Your task to perform on an android device: check android version Image 0: 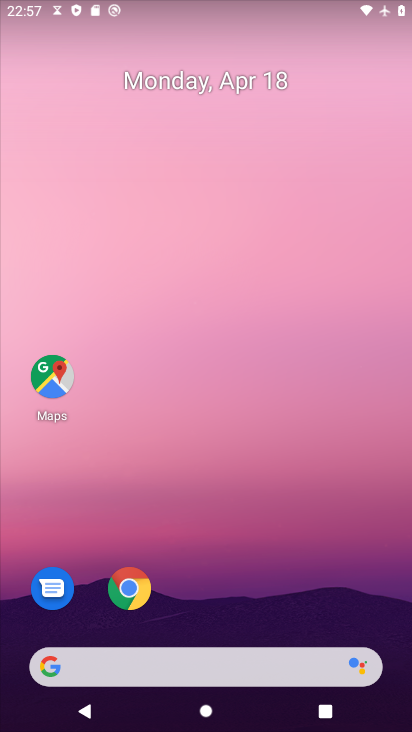
Step 0: drag from (291, 552) to (210, 13)
Your task to perform on an android device: check android version Image 1: 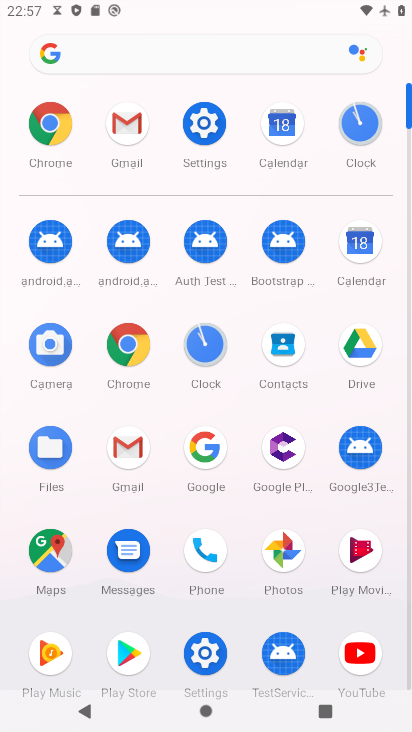
Step 1: click (206, 651)
Your task to perform on an android device: check android version Image 2: 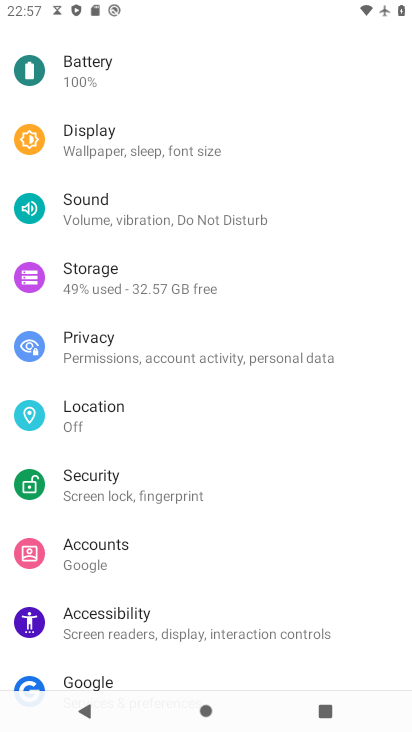
Step 2: drag from (243, 564) to (230, 126)
Your task to perform on an android device: check android version Image 3: 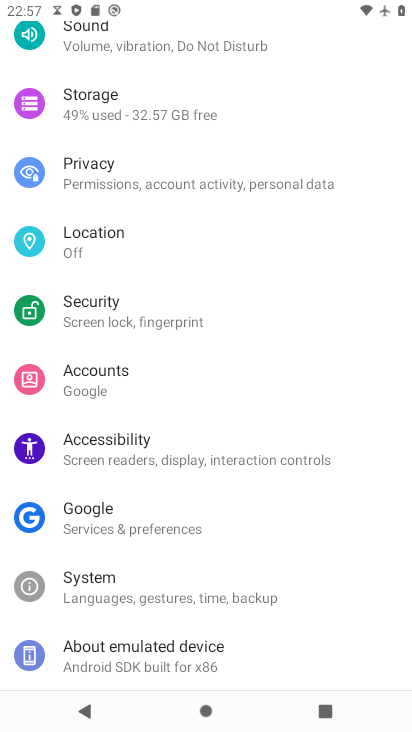
Step 3: click (210, 650)
Your task to perform on an android device: check android version Image 4: 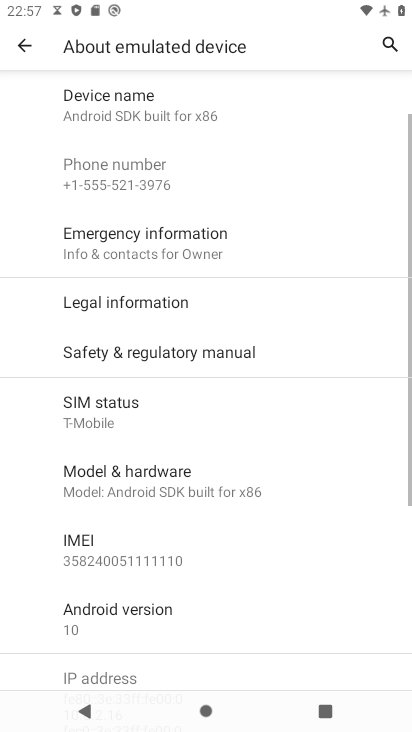
Step 4: task complete